Your task to perform on an android device: turn notification dots off Image 0: 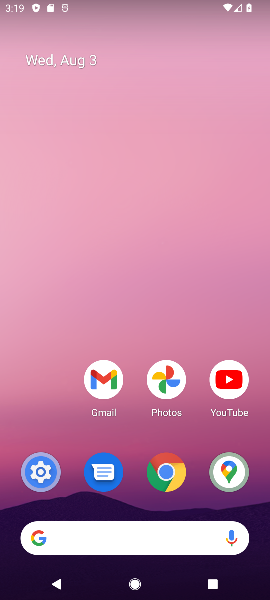
Step 0: click (33, 471)
Your task to perform on an android device: turn notification dots off Image 1: 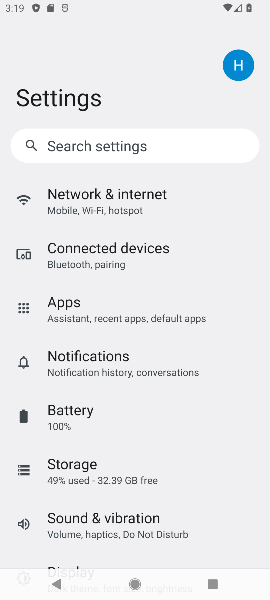
Step 1: click (106, 370)
Your task to perform on an android device: turn notification dots off Image 2: 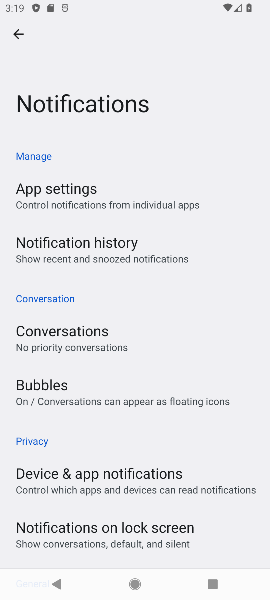
Step 2: drag from (101, 527) to (169, 184)
Your task to perform on an android device: turn notification dots off Image 3: 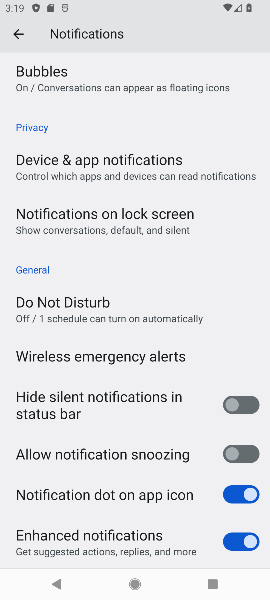
Step 3: click (240, 495)
Your task to perform on an android device: turn notification dots off Image 4: 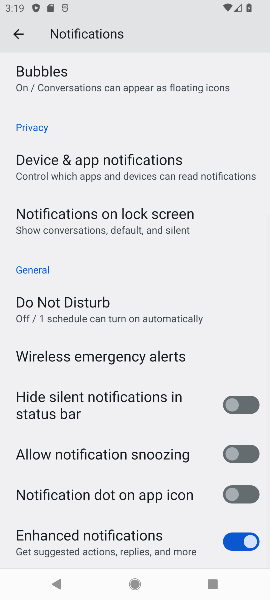
Step 4: task complete